Your task to perform on an android device: allow notifications from all sites in the chrome app Image 0: 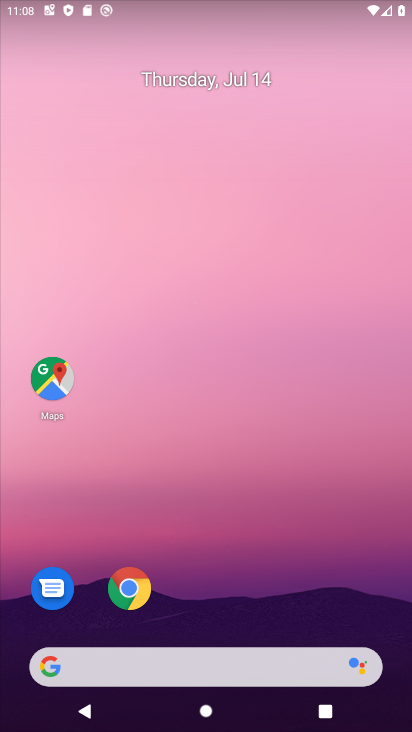
Step 0: drag from (286, 608) to (330, 216)
Your task to perform on an android device: allow notifications from all sites in the chrome app Image 1: 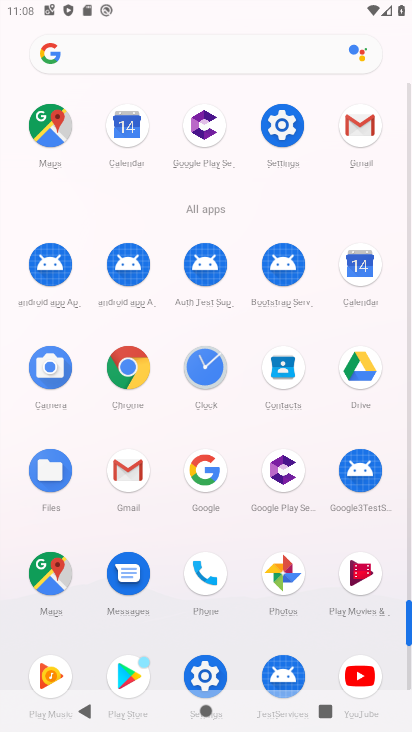
Step 1: click (126, 371)
Your task to perform on an android device: allow notifications from all sites in the chrome app Image 2: 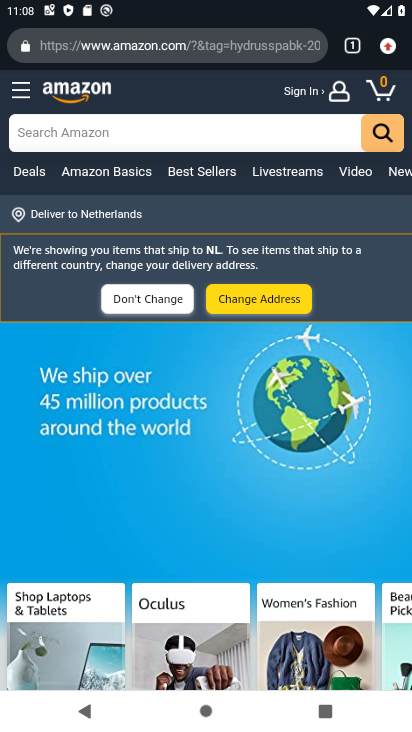
Step 2: click (387, 46)
Your task to perform on an android device: allow notifications from all sites in the chrome app Image 3: 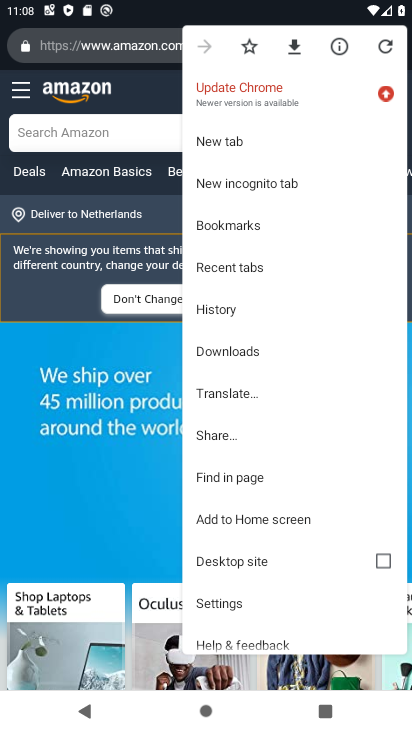
Step 3: click (226, 596)
Your task to perform on an android device: allow notifications from all sites in the chrome app Image 4: 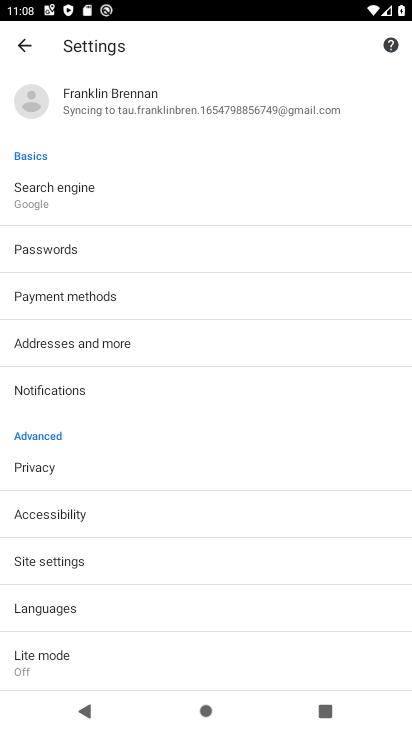
Step 4: click (42, 563)
Your task to perform on an android device: allow notifications from all sites in the chrome app Image 5: 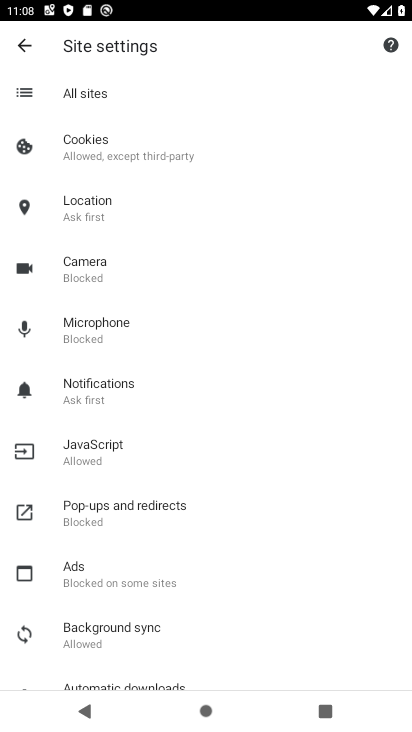
Step 5: click (103, 397)
Your task to perform on an android device: allow notifications from all sites in the chrome app Image 6: 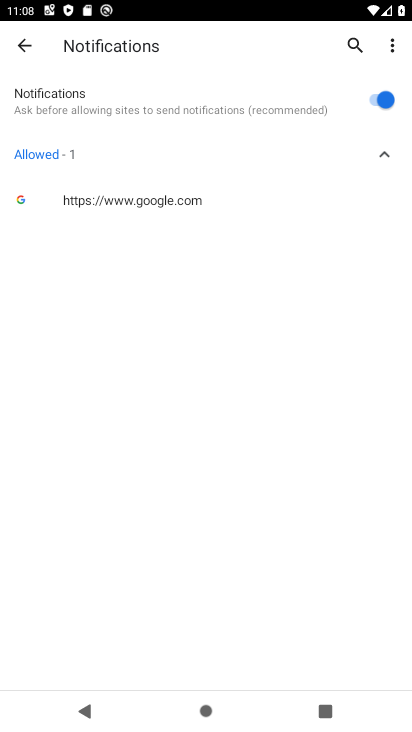
Step 6: task complete